Your task to perform on an android device: Find coffee shops on Maps Image 0: 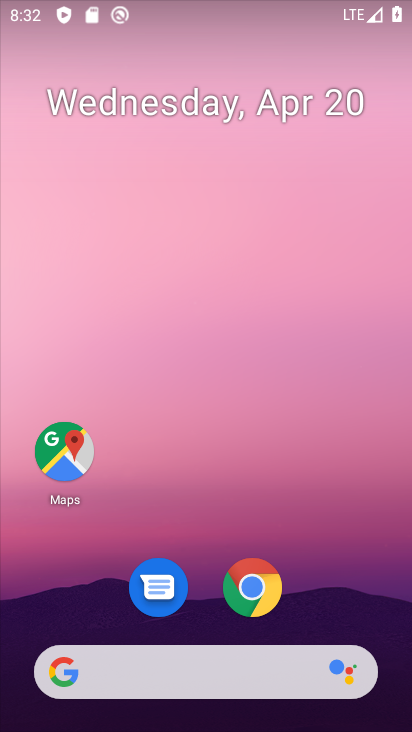
Step 0: drag from (359, 589) to (311, 220)
Your task to perform on an android device: Find coffee shops on Maps Image 1: 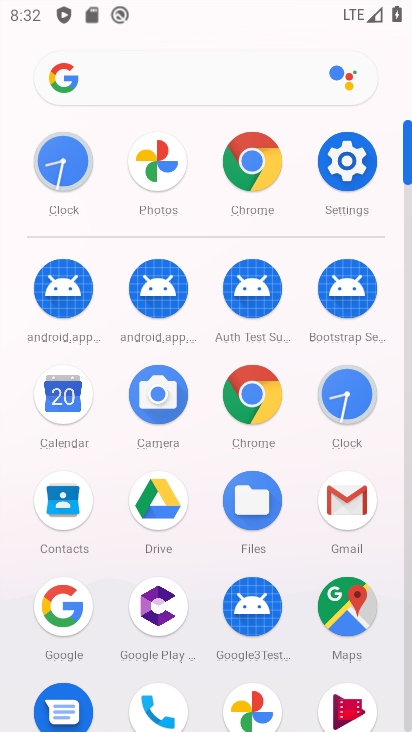
Step 1: click (357, 621)
Your task to perform on an android device: Find coffee shops on Maps Image 2: 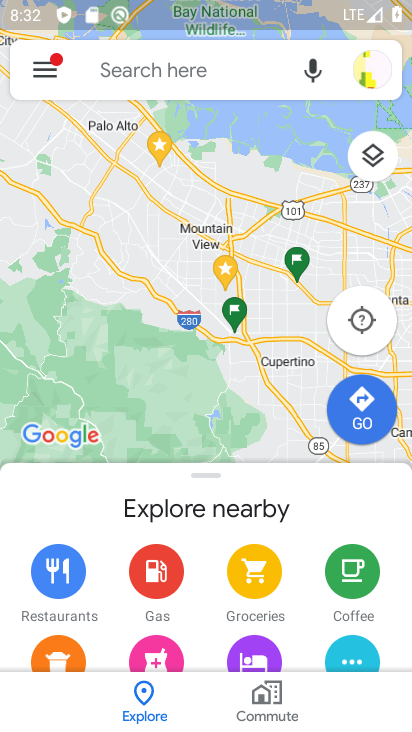
Step 2: click (223, 75)
Your task to perform on an android device: Find coffee shops on Maps Image 3: 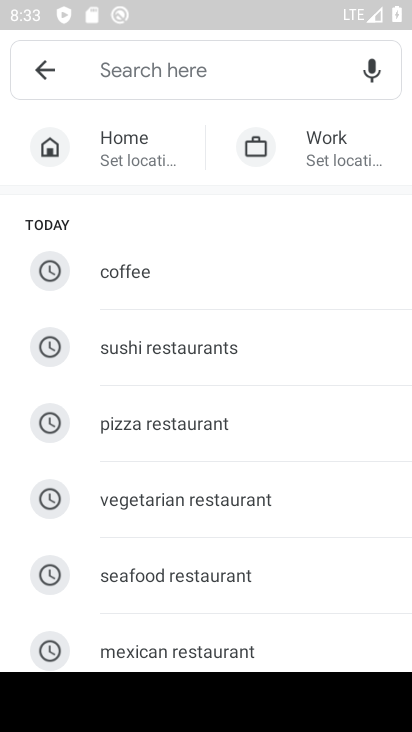
Step 3: type "coffee"
Your task to perform on an android device: Find coffee shops on Maps Image 4: 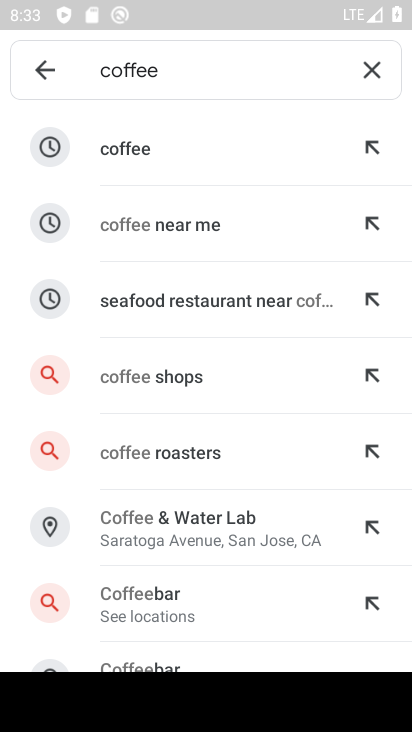
Step 4: click (246, 155)
Your task to perform on an android device: Find coffee shops on Maps Image 5: 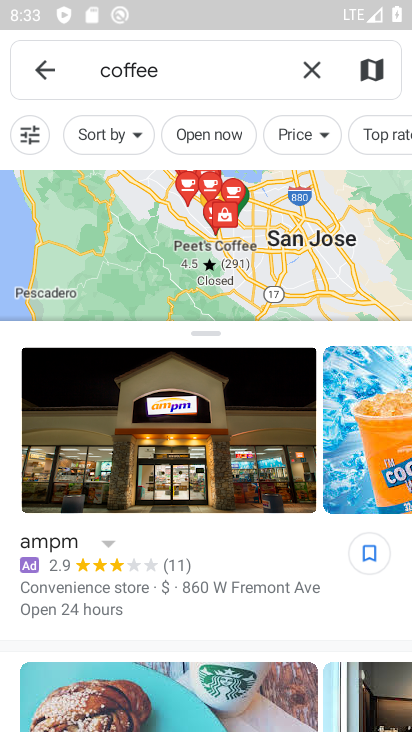
Step 5: task complete